Your task to perform on an android device: Open sound settings Image 0: 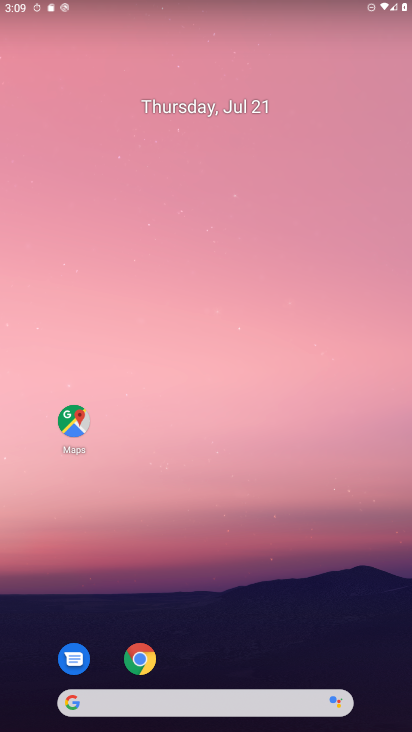
Step 0: press home button
Your task to perform on an android device: Open sound settings Image 1: 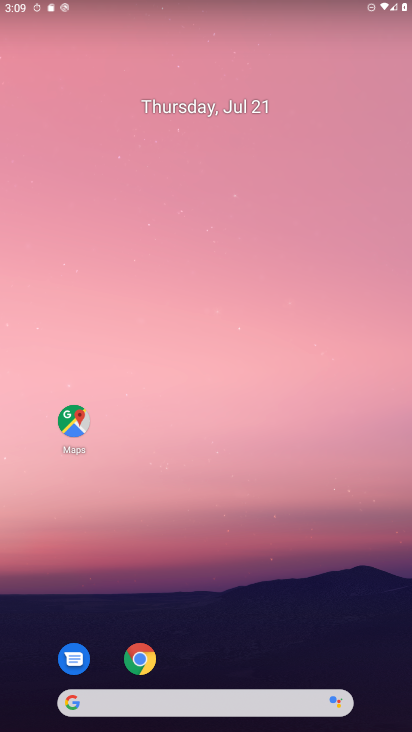
Step 1: drag from (63, 531) to (247, 38)
Your task to perform on an android device: Open sound settings Image 2: 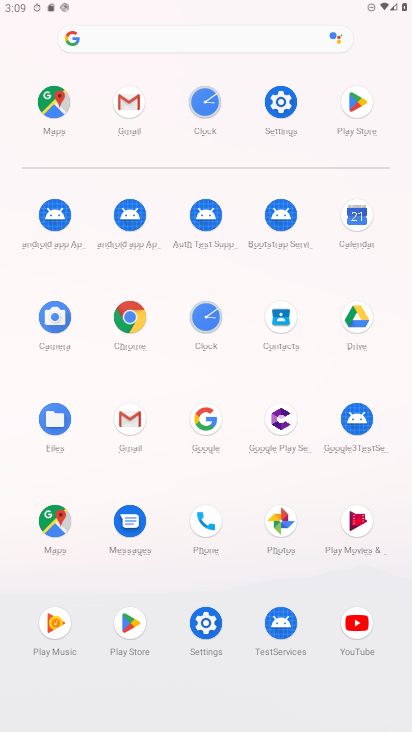
Step 2: click (282, 112)
Your task to perform on an android device: Open sound settings Image 3: 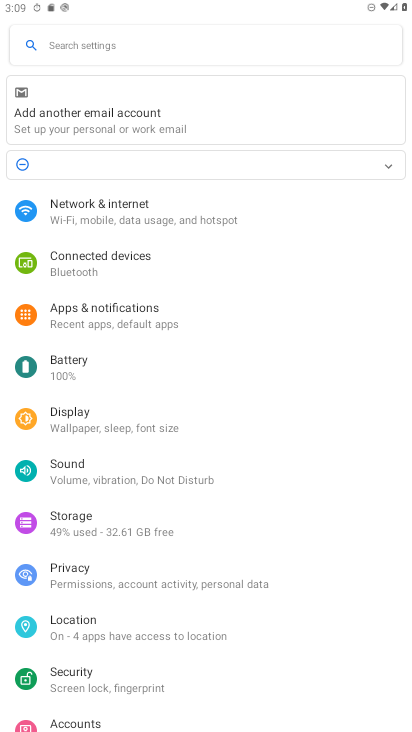
Step 3: click (112, 400)
Your task to perform on an android device: Open sound settings Image 4: 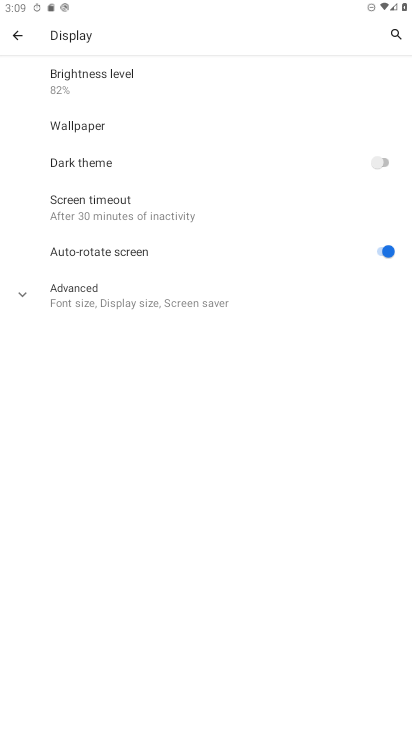
Step 4: press back button
Your task to perform on an android device: Open sound settings Image 5: 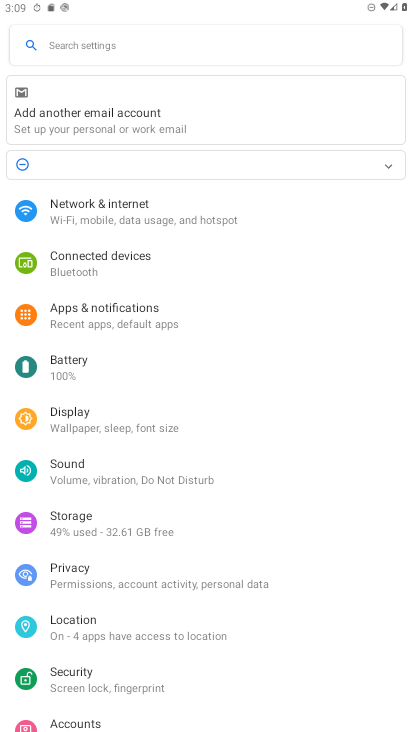
Step 5: click (108, 488)
Your task to perform on an android device: Open sound settings Image 6: 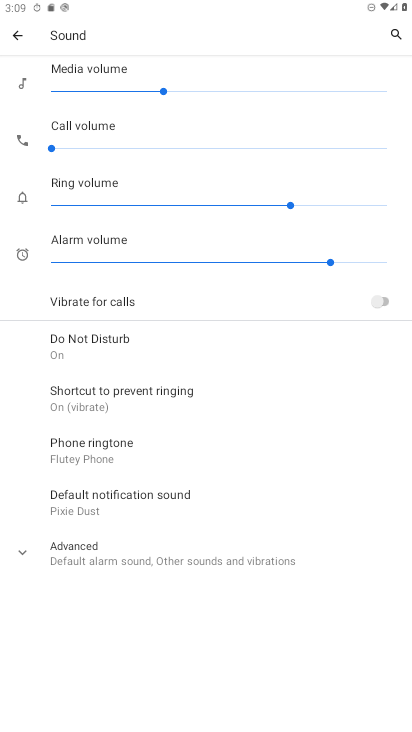
Step 6: task complete